Your task to perform on an android device: open app "Pandora - Music & Podcasts" Image 0: 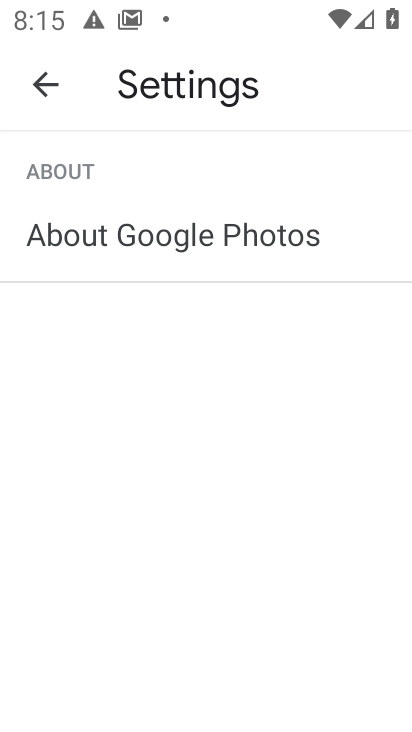
Step 0: press home button
Your task to perform on an android device: open app "Pandora - Music & Podcasts" Image 1: 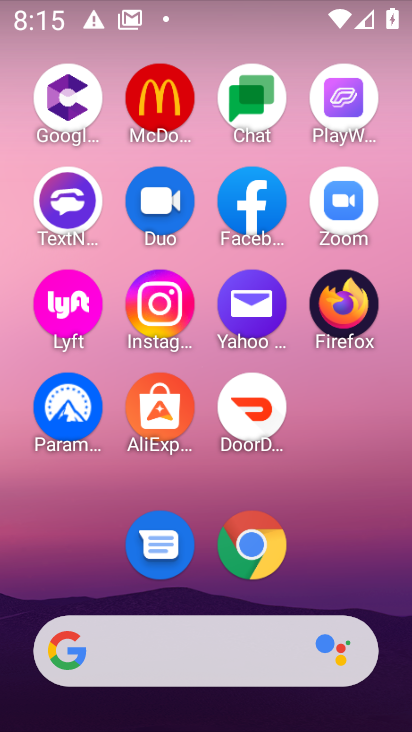
Step 1: drag from (350, 542) to (409, 95)
Your task to perform on an android device: open app "Pandora - Music & Podcasts" Image 2: 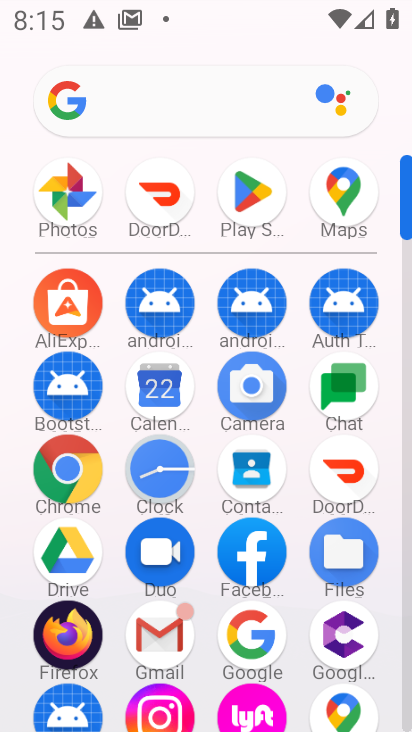
Step 2: click (256, 193)
Your task to perform on an android device: open app "Pandora - Music & Podcasts" Image 3: 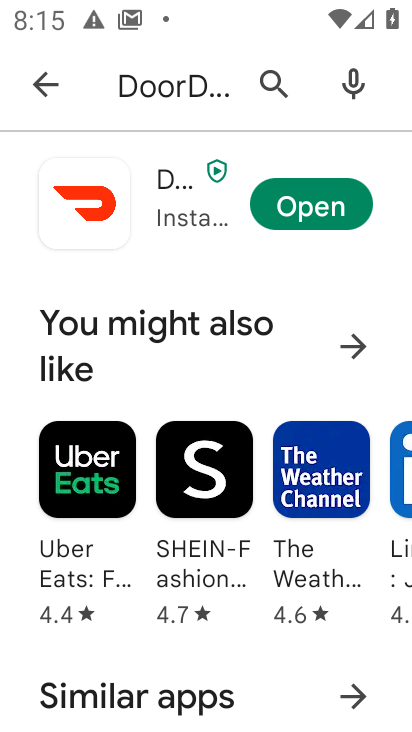
Step 3: press back button
Your task to perform on an android device: open app "Pandora - Music & Podcasts" Image 4: 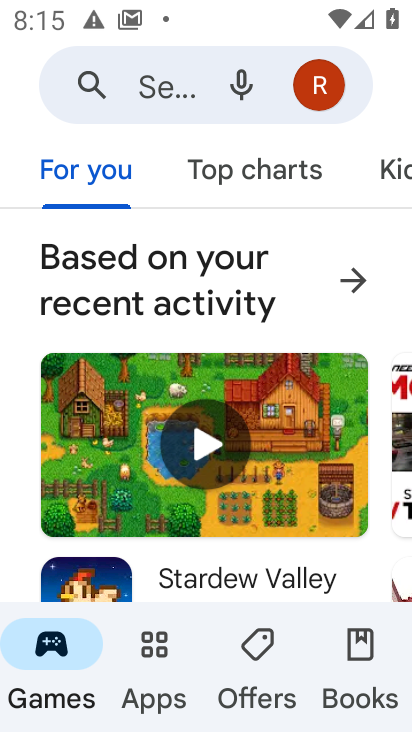
Step 4: click (170, 93)
Your task to perform on an android device: open app "Pandora - Music & Podcasts" Image 5: 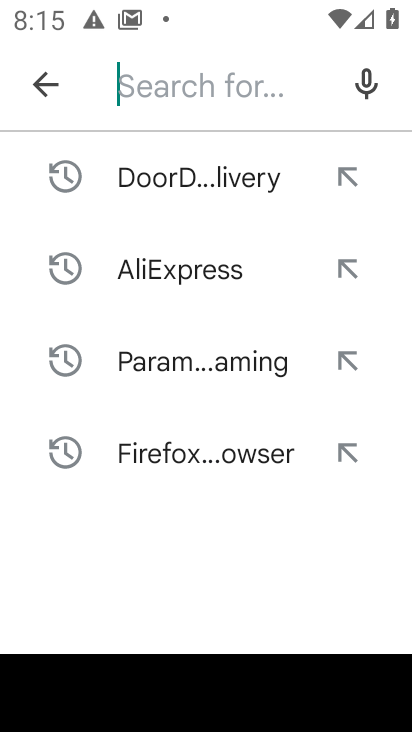
Step 5: type "Pandora - Music & Podcasts"
Your task to perform on an android device: open app "Pandora - Music & Podcasts" Image 6: 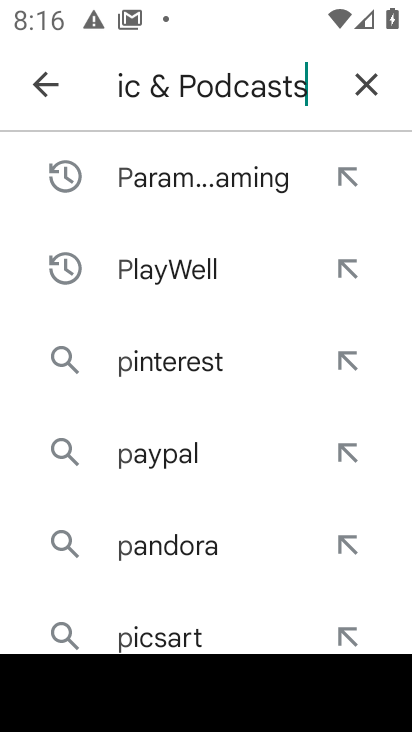
Step 6: press enter
Your task to perform on an android device: open app "Pandora - Music & Podcasts" Image 7: 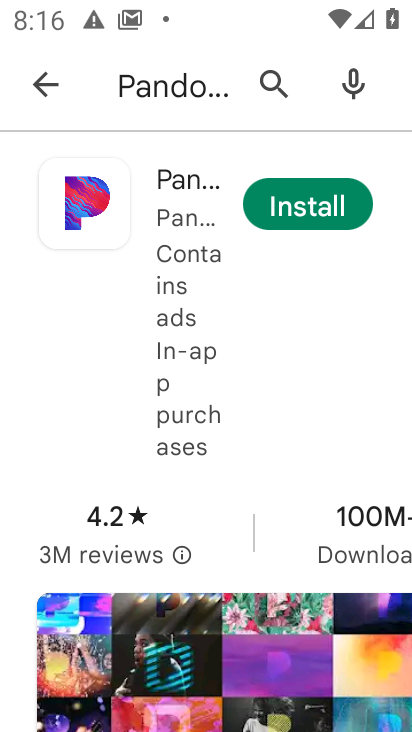
Step 7: task complete